Your task to perform on an android device: Go to notification settings Image 0: 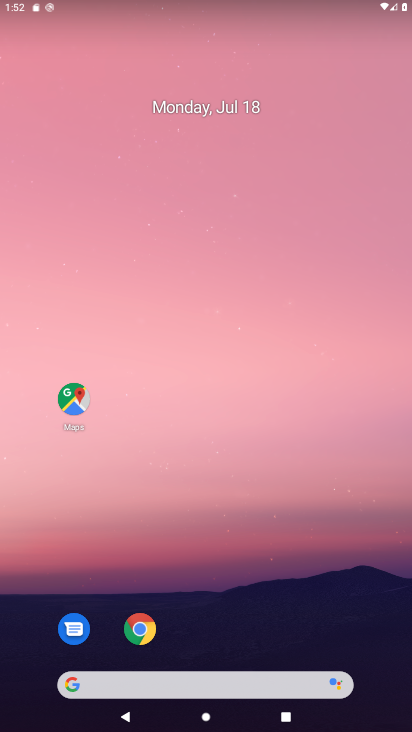
Step 0: drag from (169, 259) to (169, 41)
Your task to perform on an android device: Go to notification settings Image 1: 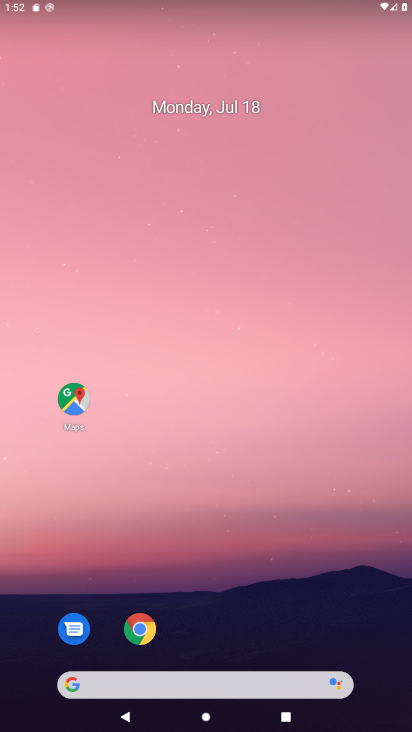
Step 1: click (229, 146)
Your task to perform on an android device: Go to notification settings Image 2: 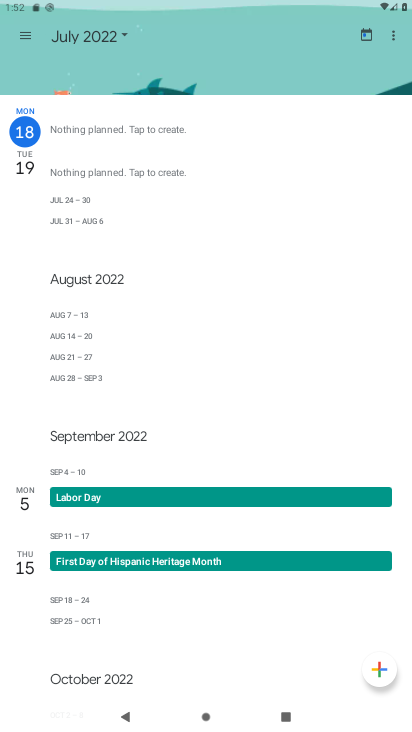
Step 2: press home button
Your task to perform on an android device: Go to notification settings Image 3: 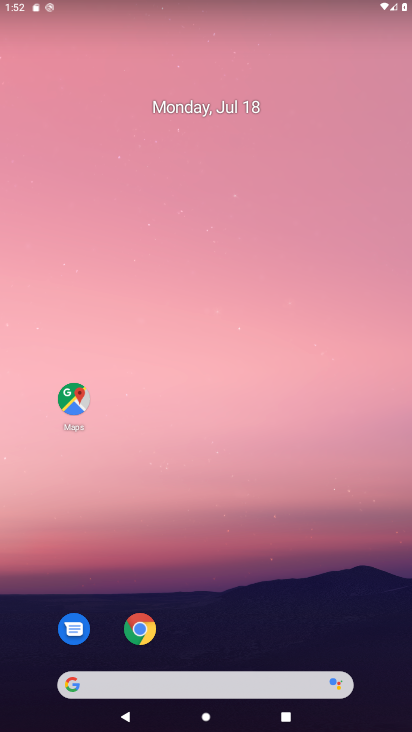
Step 3: click (166, 111)
Your task to perform on an android device: Go to notification settings Image 4: 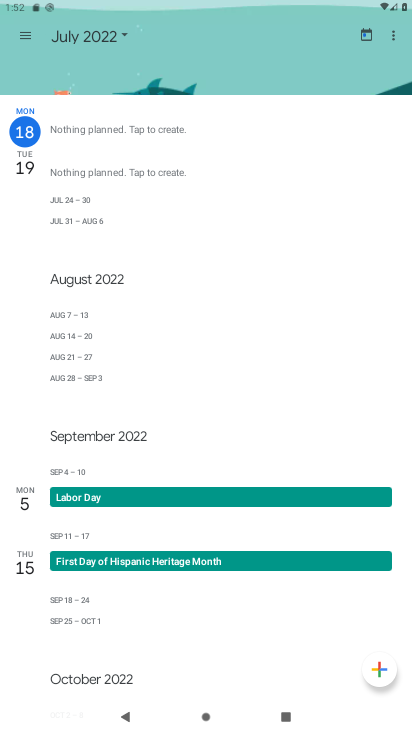
Step 4: press home button
Your task to perform on an android device: Go to notification settings Image 5: 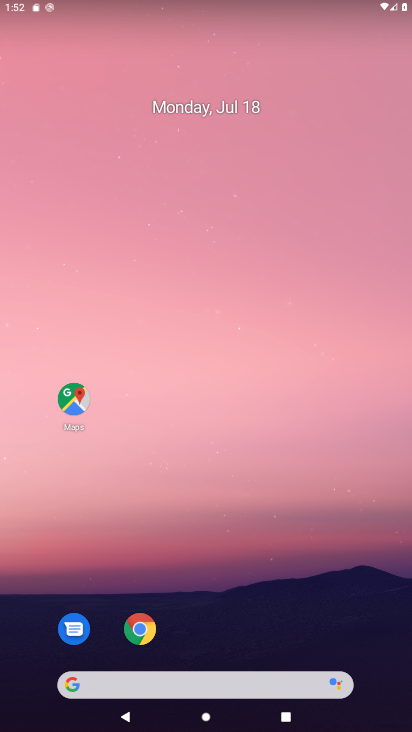
Step 5: drag from (194, 635) to (240, 77)
Your task to perform on an android device: Go to notification settings Image 6: 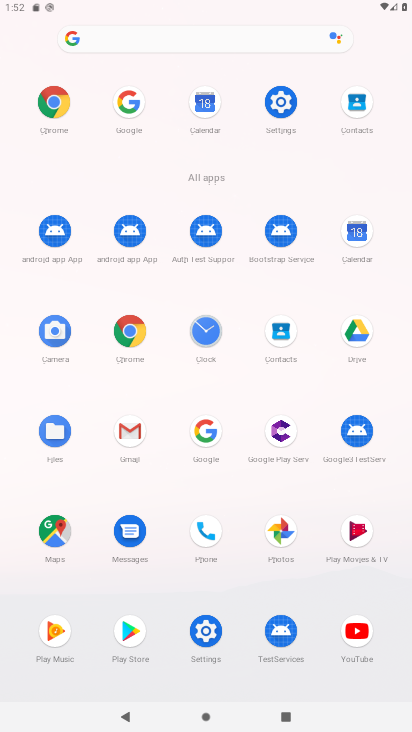
Step 6: click (287, 105)
Your task to perform on an android device: Go to notification settings Image 7: 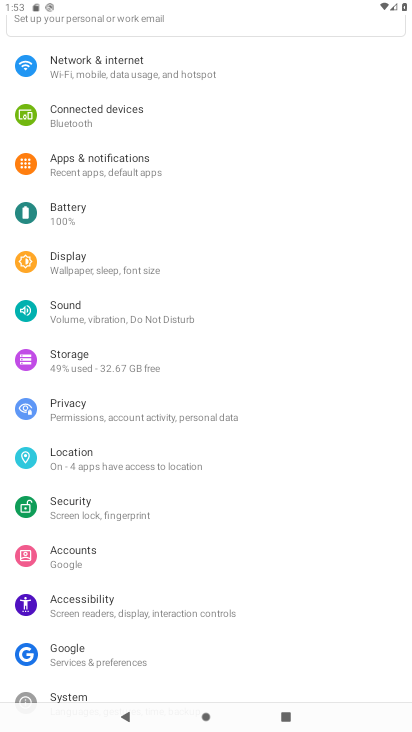
Step 7: click (122, 160)
Your task to perform on an android device: Go to notification settings Image 8: 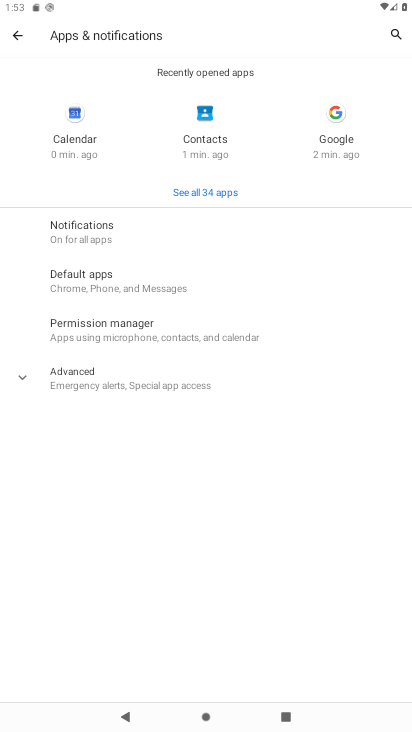
Step 8: task complete